Your task to perform on an android device: turn on data saver in the chrome app Image 0: 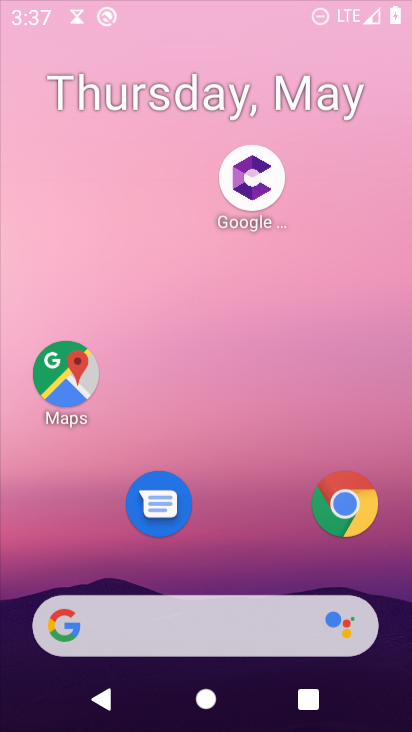
Step 0: press home button
Your task to perform on an android device: turn on data saver in the chrome app Image 1: 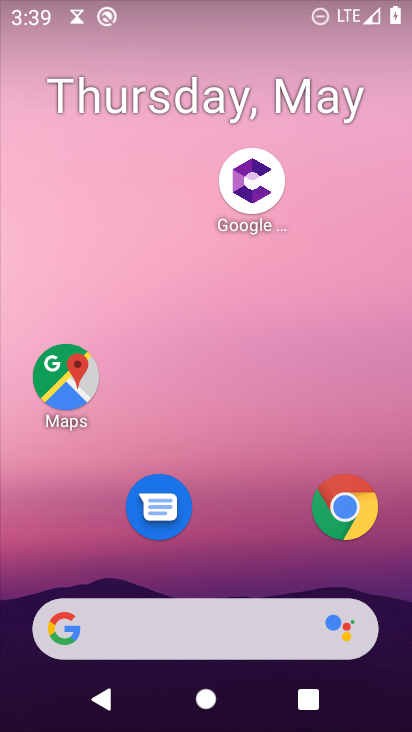
Step 1: click (334, 519)
Your task to perform on an android device: turn on data saver in the chrome app Image 2: 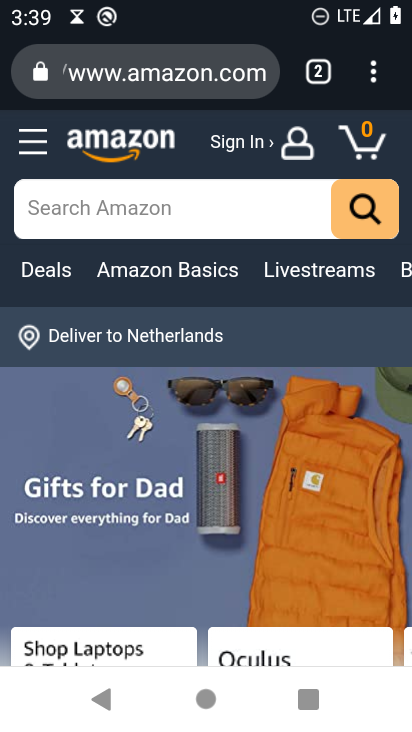
Step 2: drag from (370, 71) to (145, 516)
Your task to perform on an android device: turn on data saver in the chrome app Image 3: 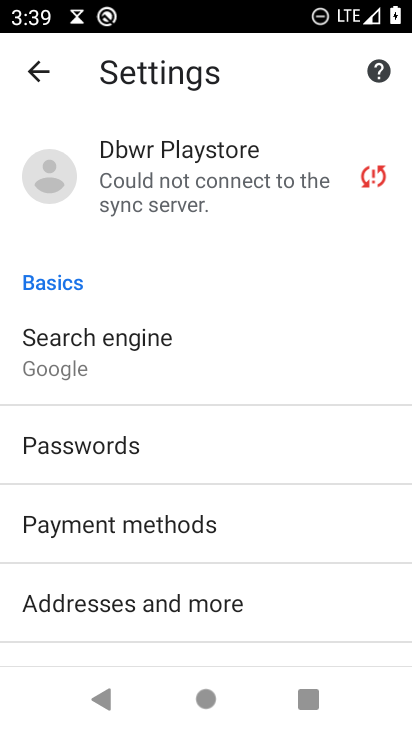
Step 3: drag from (296, 598) to (311, 331)
Your task to perform on an android device: turn on data saver in the chrome app Image 4: 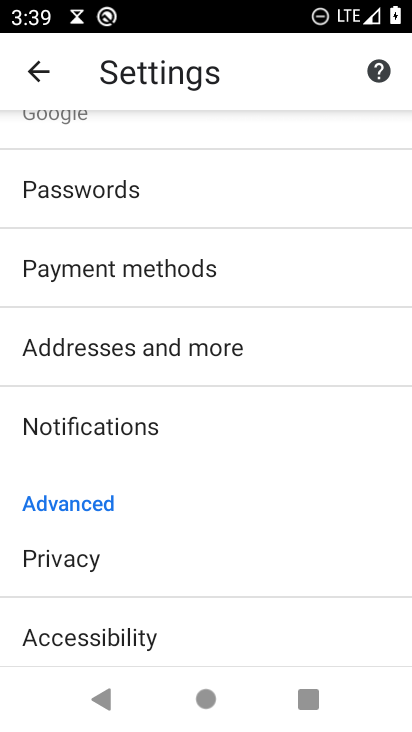
Step 4: drag from (275, 513) to (240, 197)
Your task to perform on an android device: turn on data saver in the chrome app Image 5: 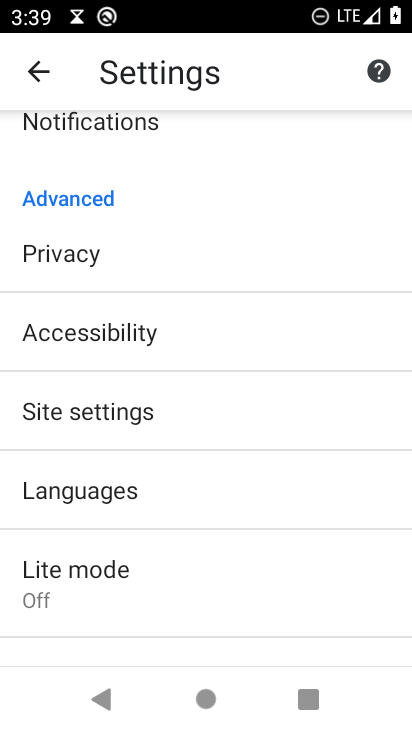
Step 5: click (79, 576)
Your task to perform on an android device: turn on data saver in the chrome app Image 6: 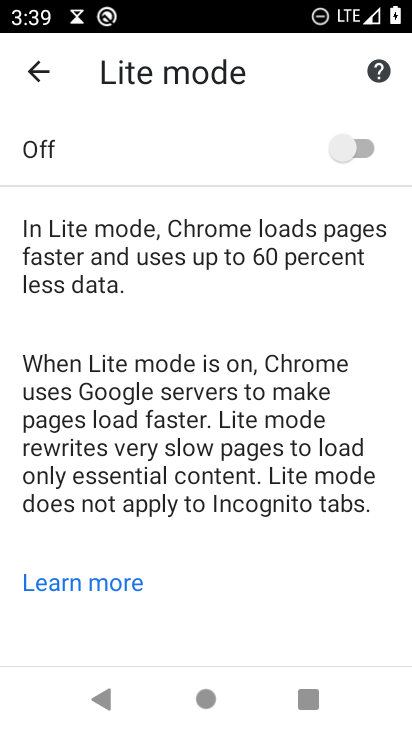
Step 6: click (359, 153)
Your task to perform on an android device: turn on data saver in the chrome app Image 7: 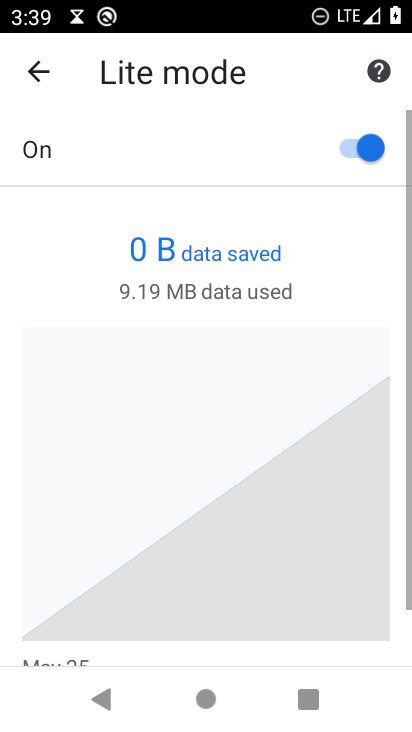
Step 7: task complete